Your task to perform on an android device: uninstall "Life360: Find Family & Friends" Image 0: 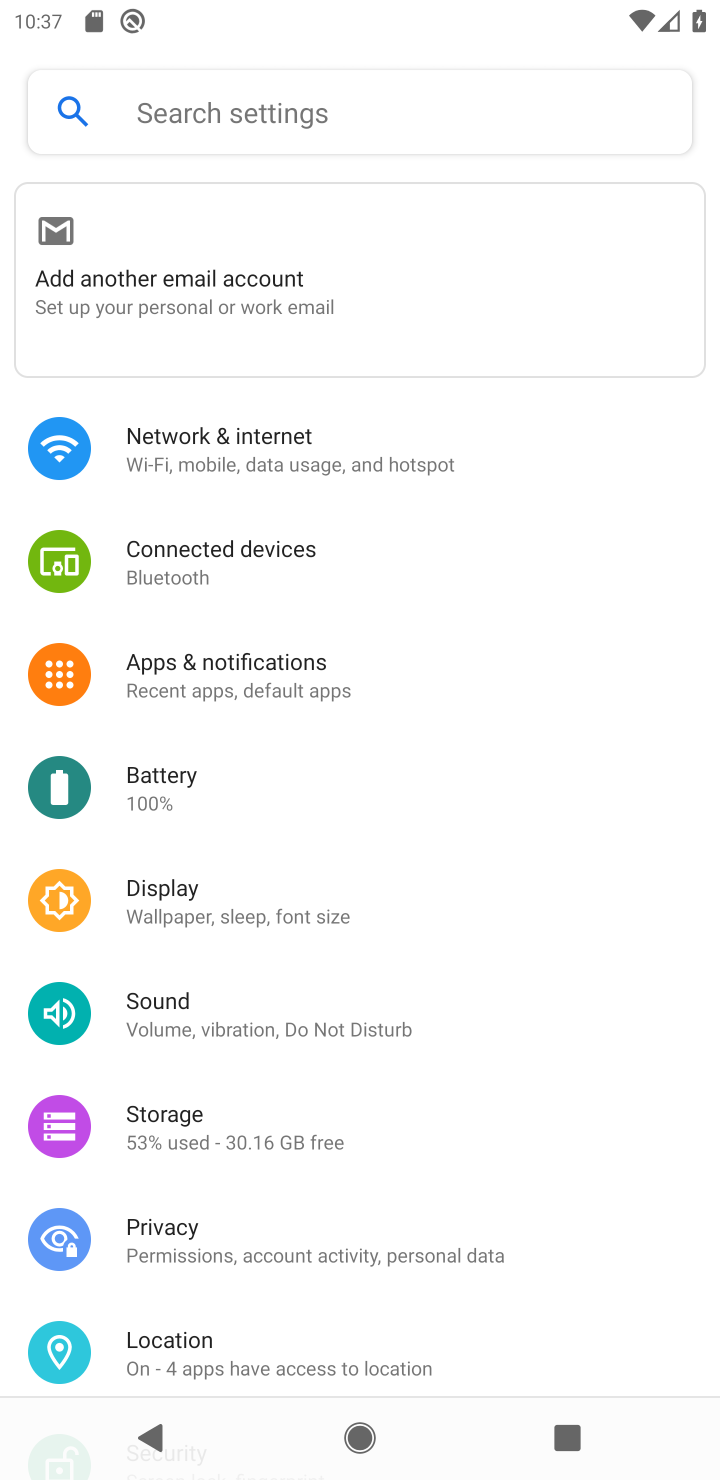
Step 0: press home button
Your task to perform on an android device: uninstall "Life360: Find Family & Friends" Image 1: 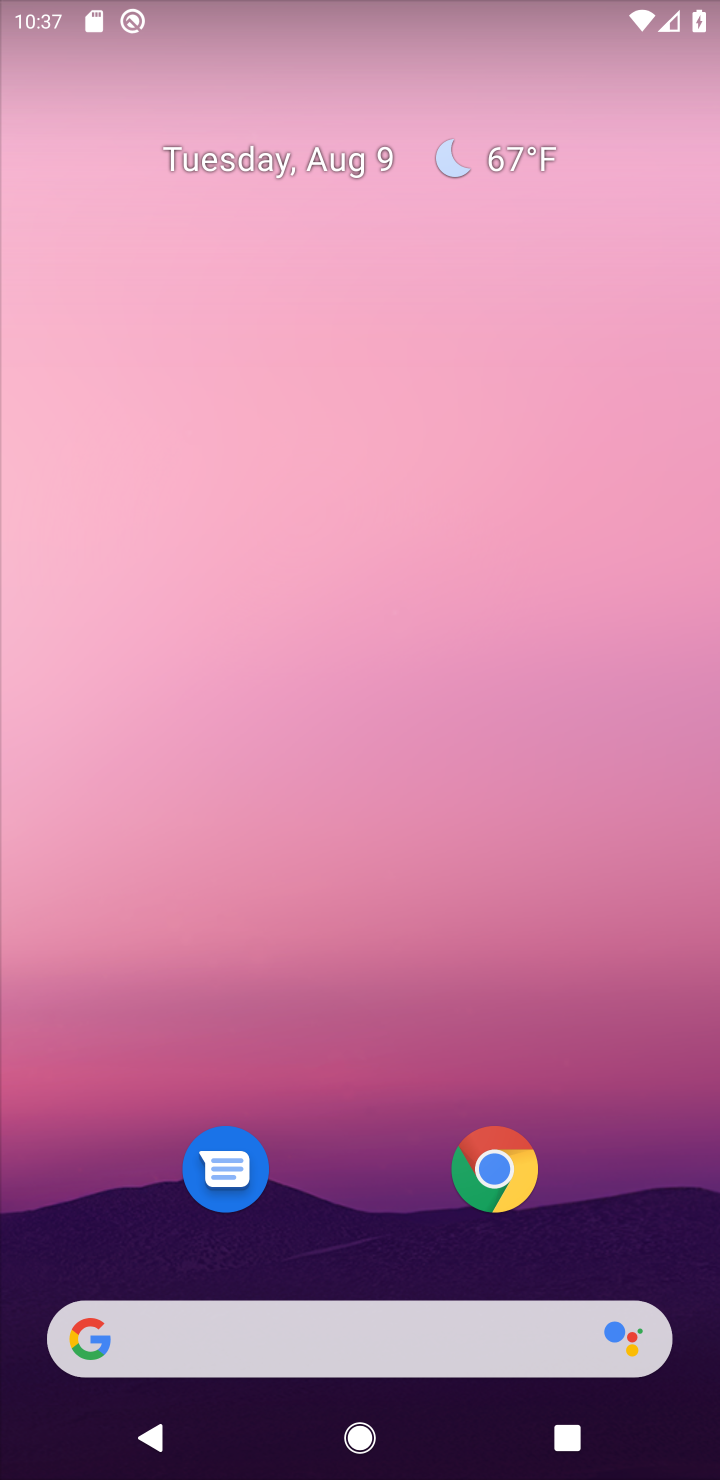
Step 1: drag from (654, 541) to (679, 108)
Your task to perform on an android device: uninstall "Life360: Find Family & Friends" Image 2: 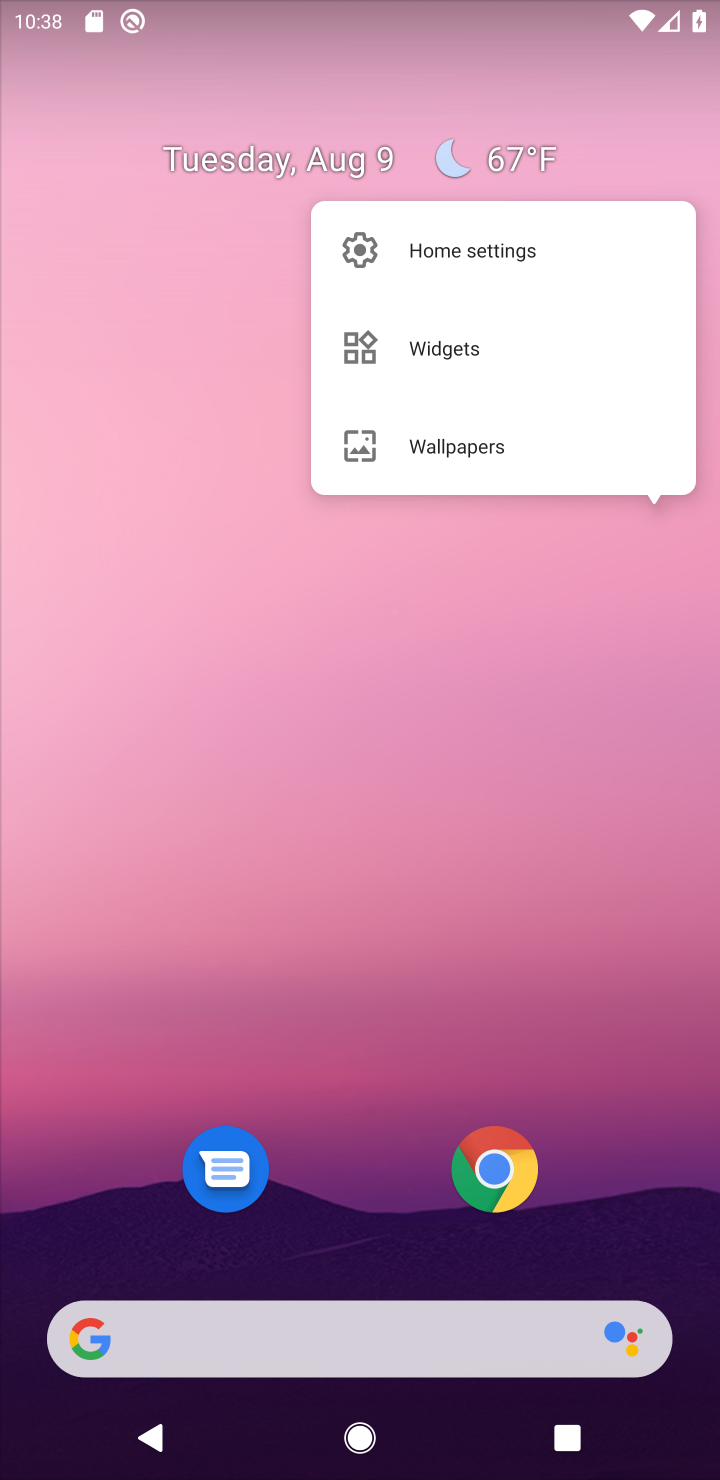
Step 2: click (599, 943)
Your task to perform on an android device: uninstall "Life360: Find Family & Friends" Image 3: 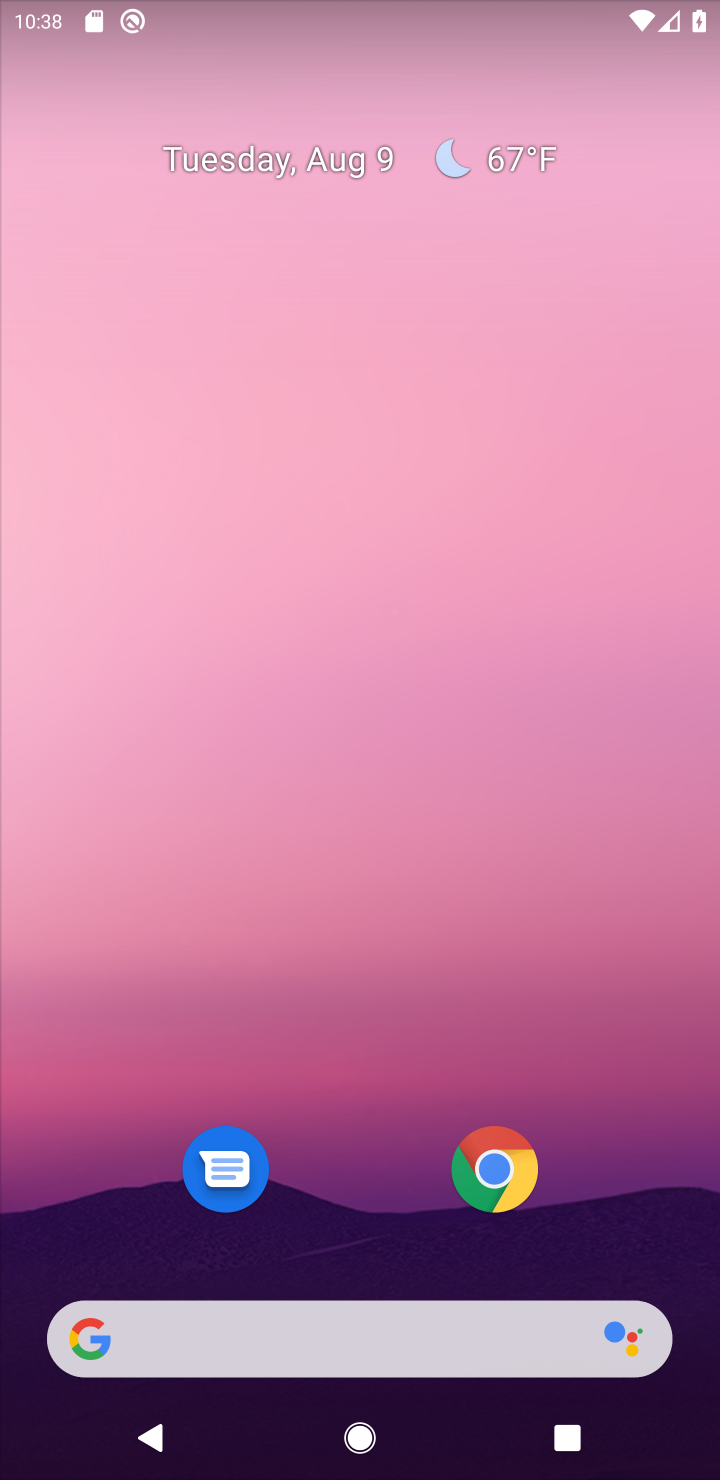
Step 3: drag from (617, 1158) to (606, 85)
Your task to perform on an android device: uninstall "Life360: Find Family & Friends" Image 4: 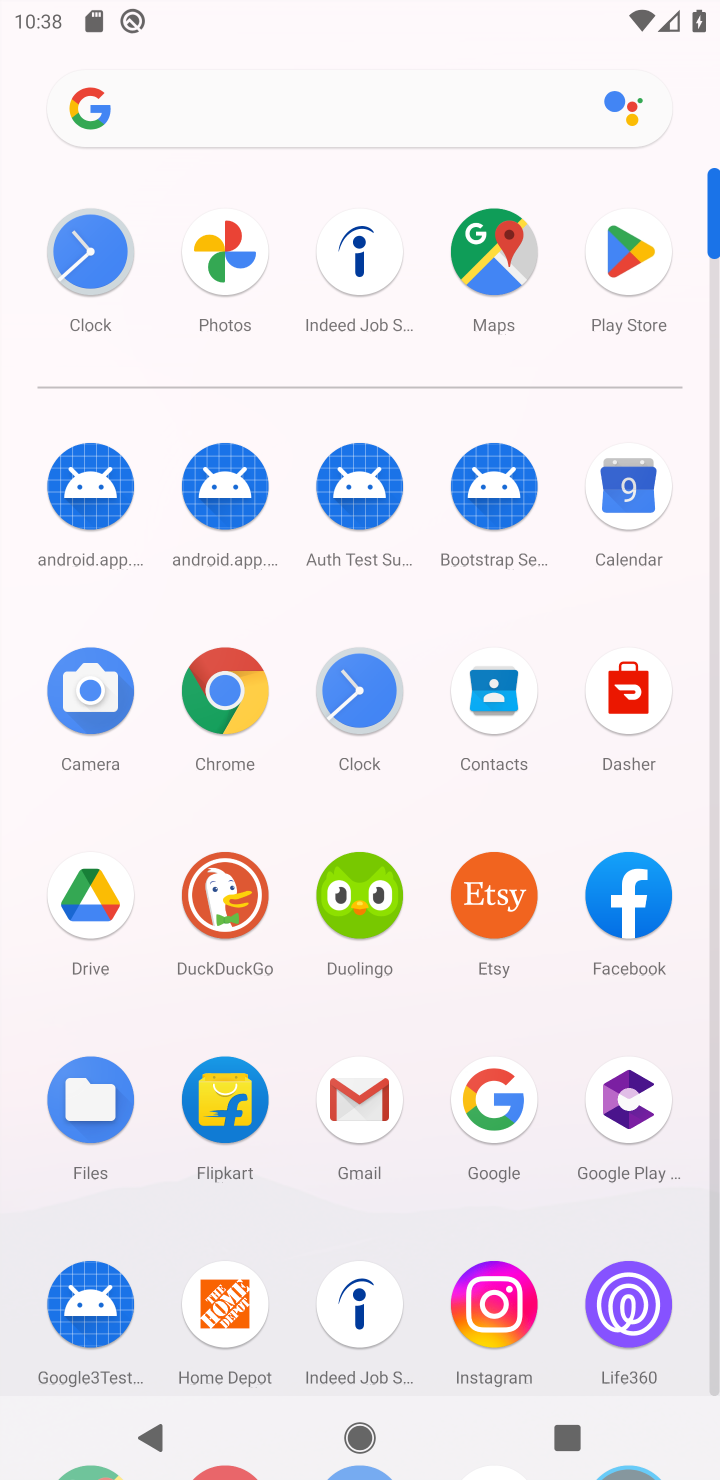
Step 4: click (632, 241)
Your task to perform on an android device: uninstall "Life360: Find Family & Friends" Image 5: 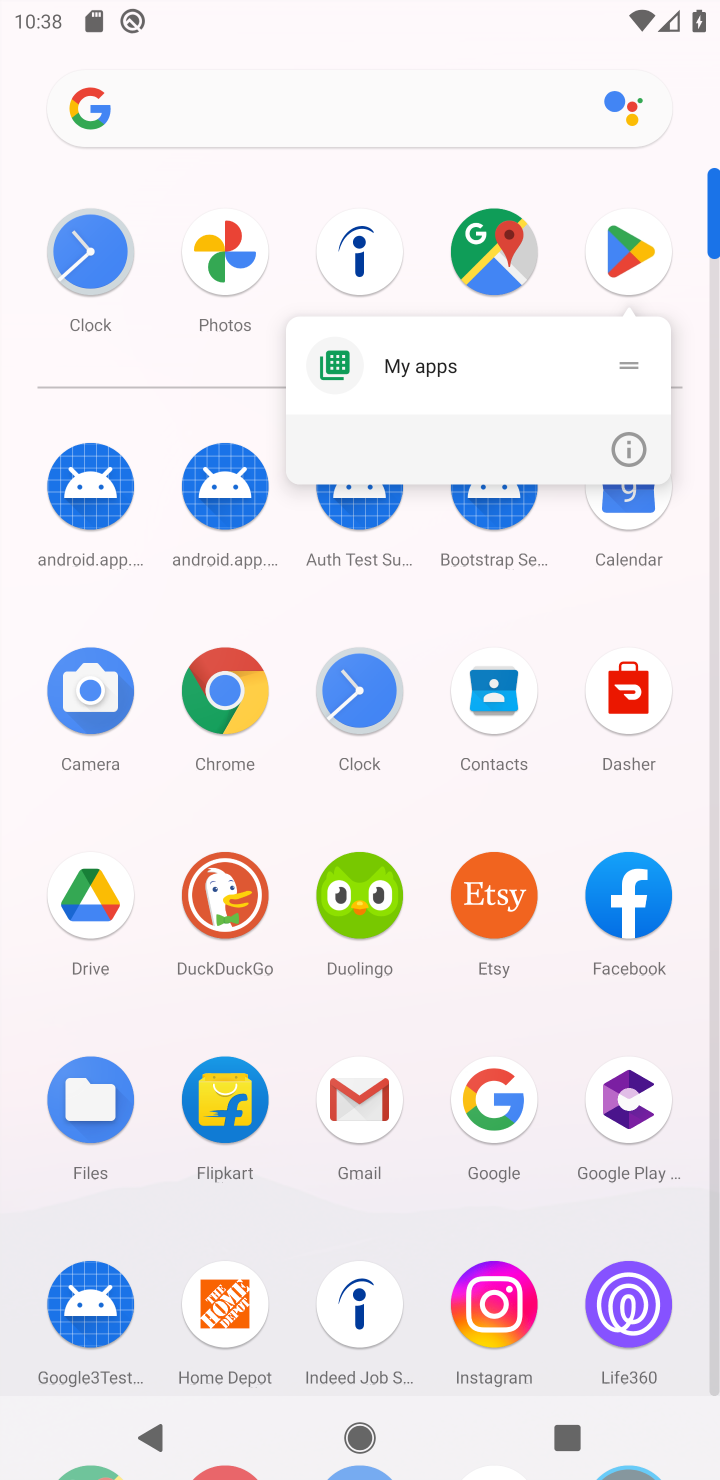
Step 5: click (614, 241)
Your task to perform on an android device: uninstall "Life360: Find Family & Friends" Image 6: 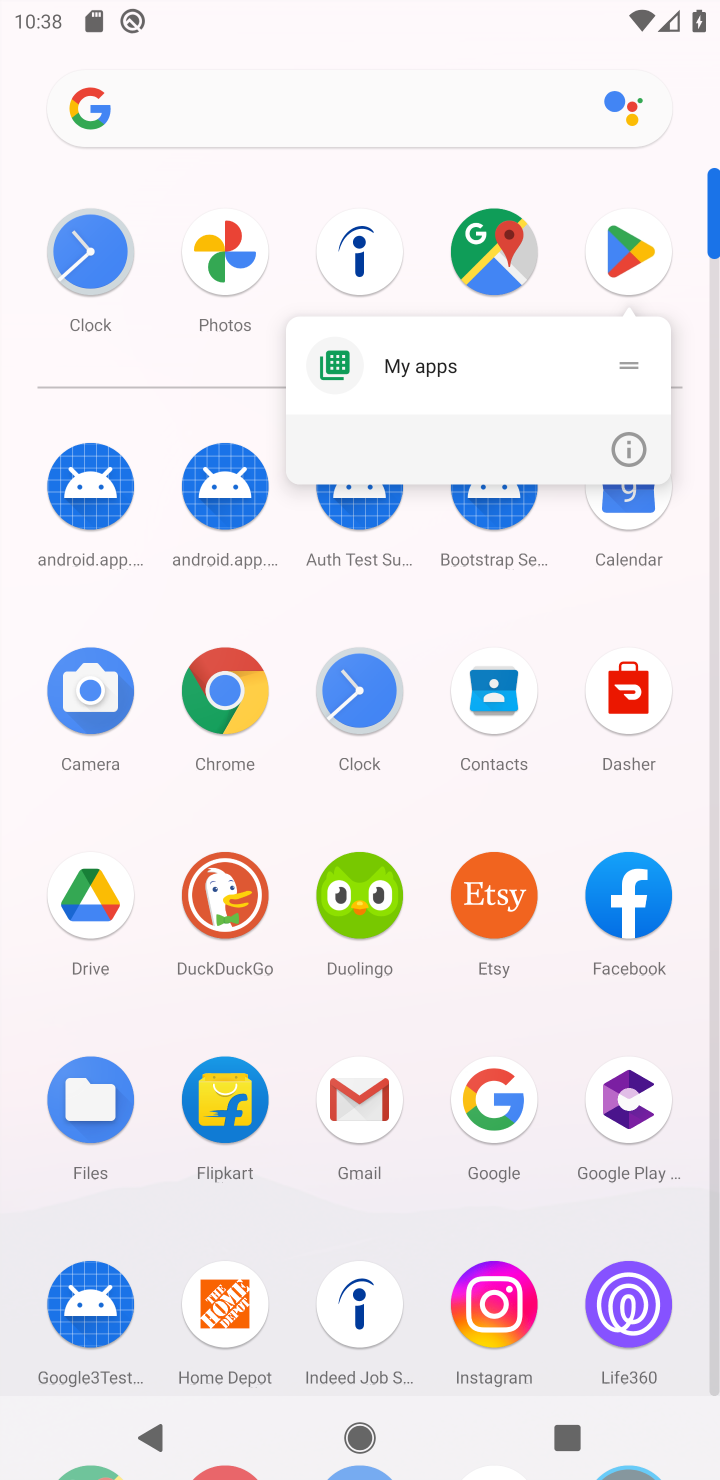
Step 6: click (626, 232)
Your task to perform on an android device: uninstall "Life360: Find Family & Friends" Image 7: 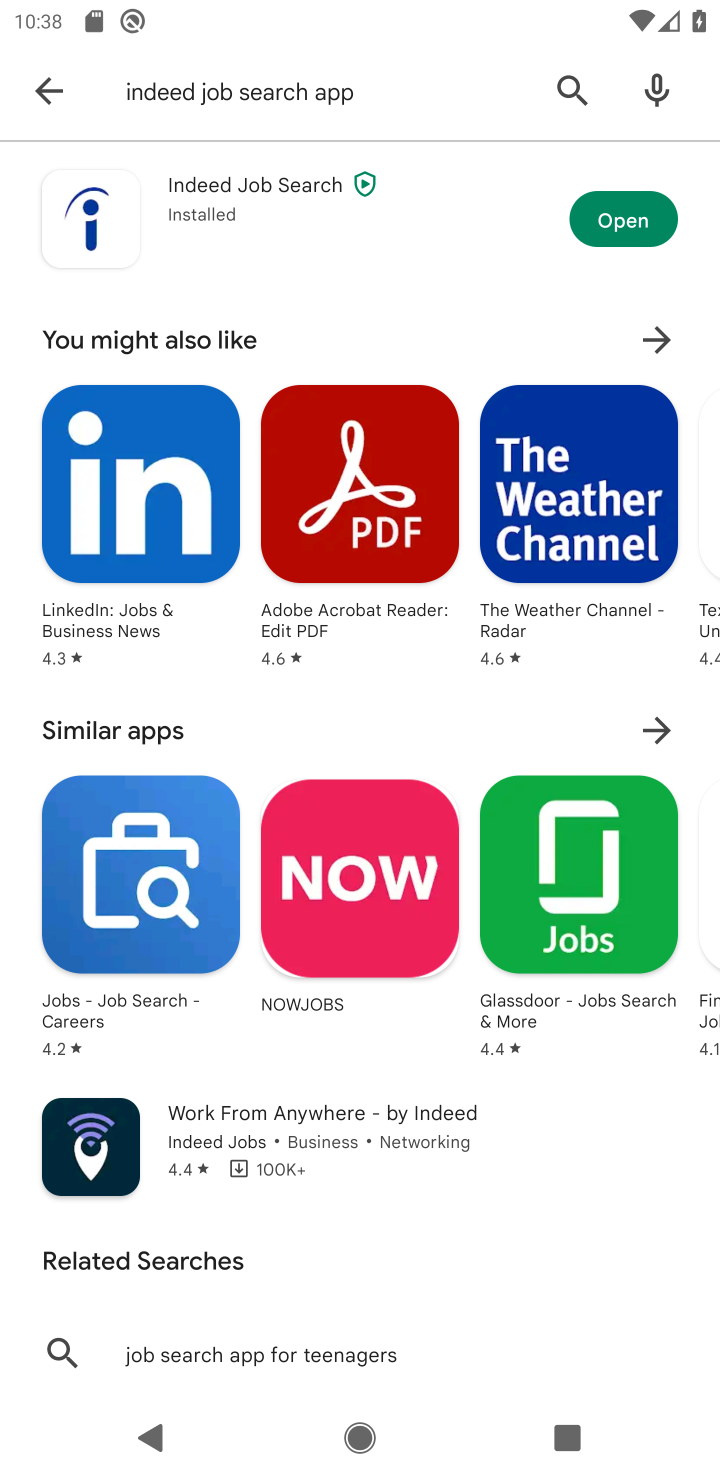
Step 7: click (568, 93)
Your task to perform on an android device: uninstall "Life360: Find Family & Friends" Image 8: 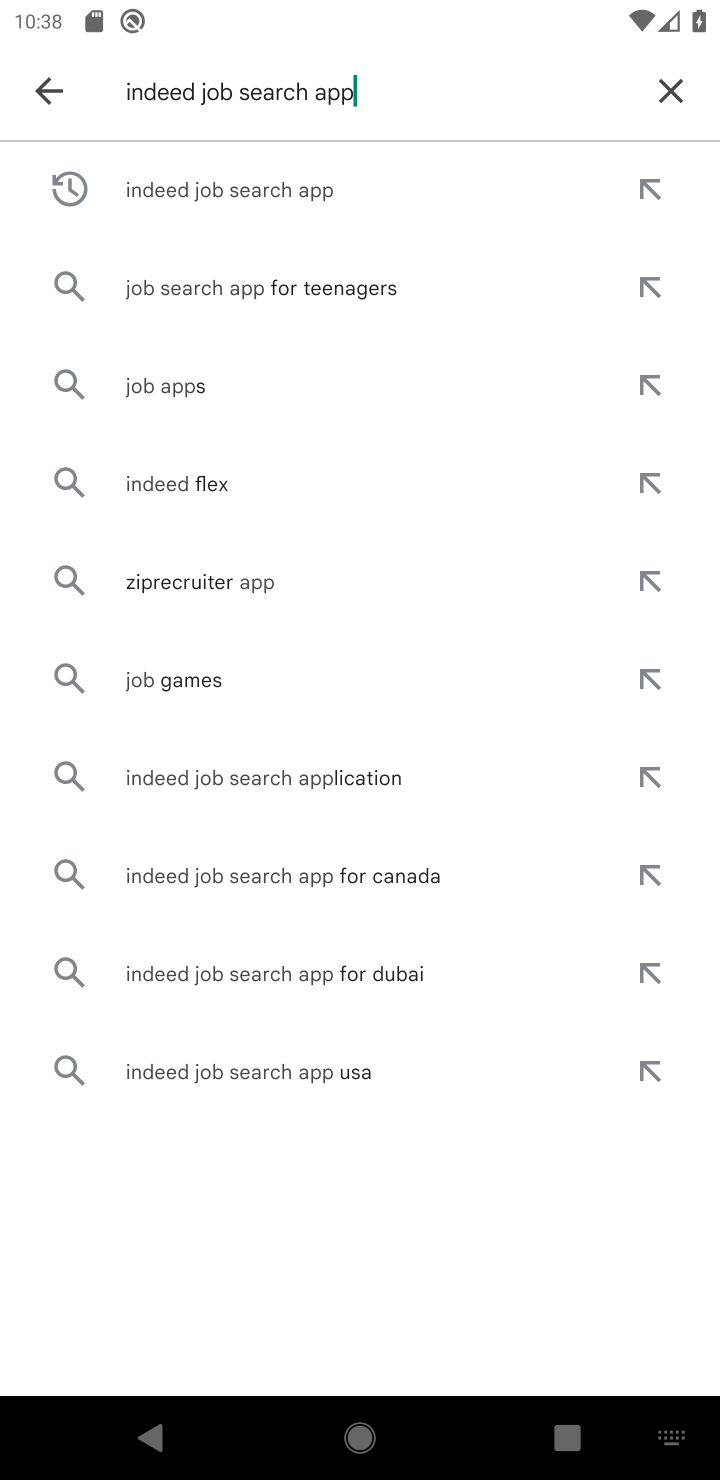
Step 8: click (669, 92)
Your task to perform on an android device: uninstall "Life360: Find Family & Friends" Image 9: 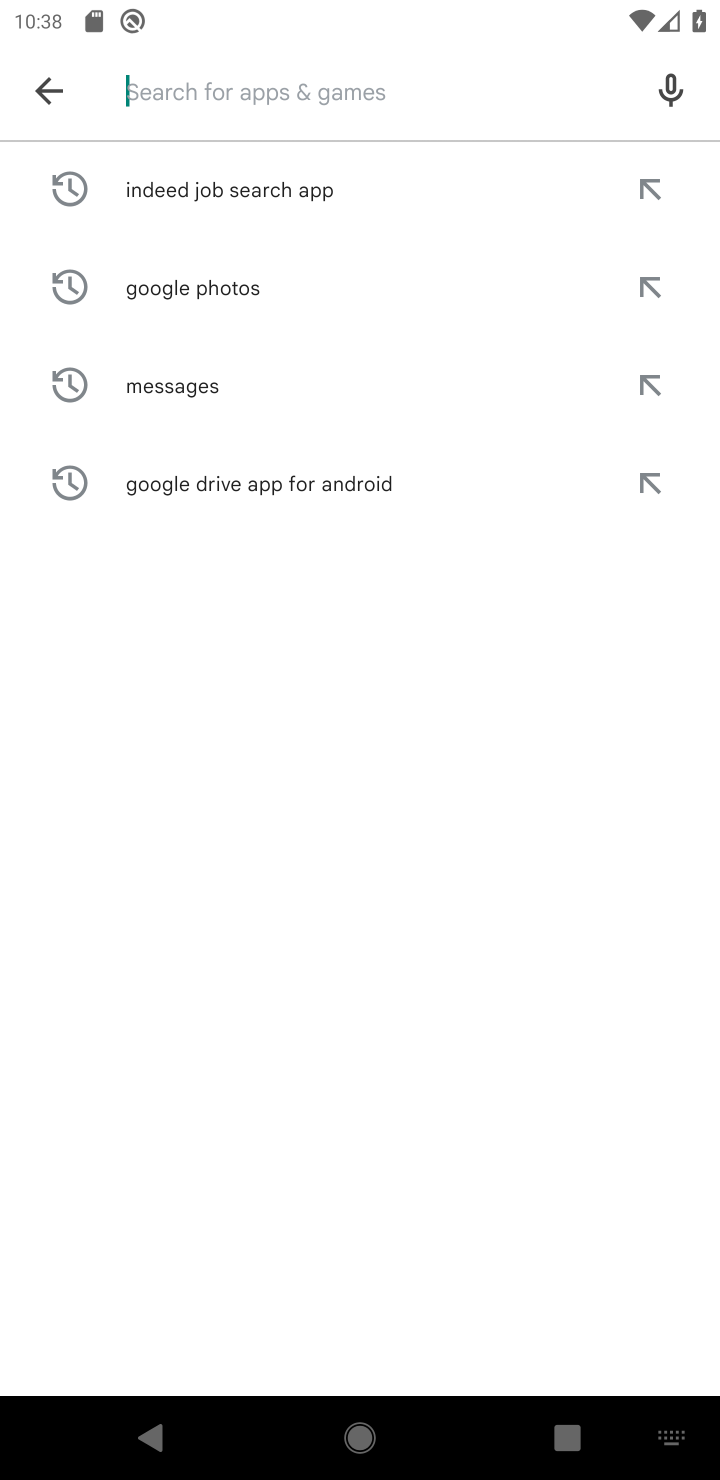
Step 9: type "Life360: Find Family & Friends"
Your task to perform on an android device: uninstall "Life360: Find Family & Friends" Image 10: 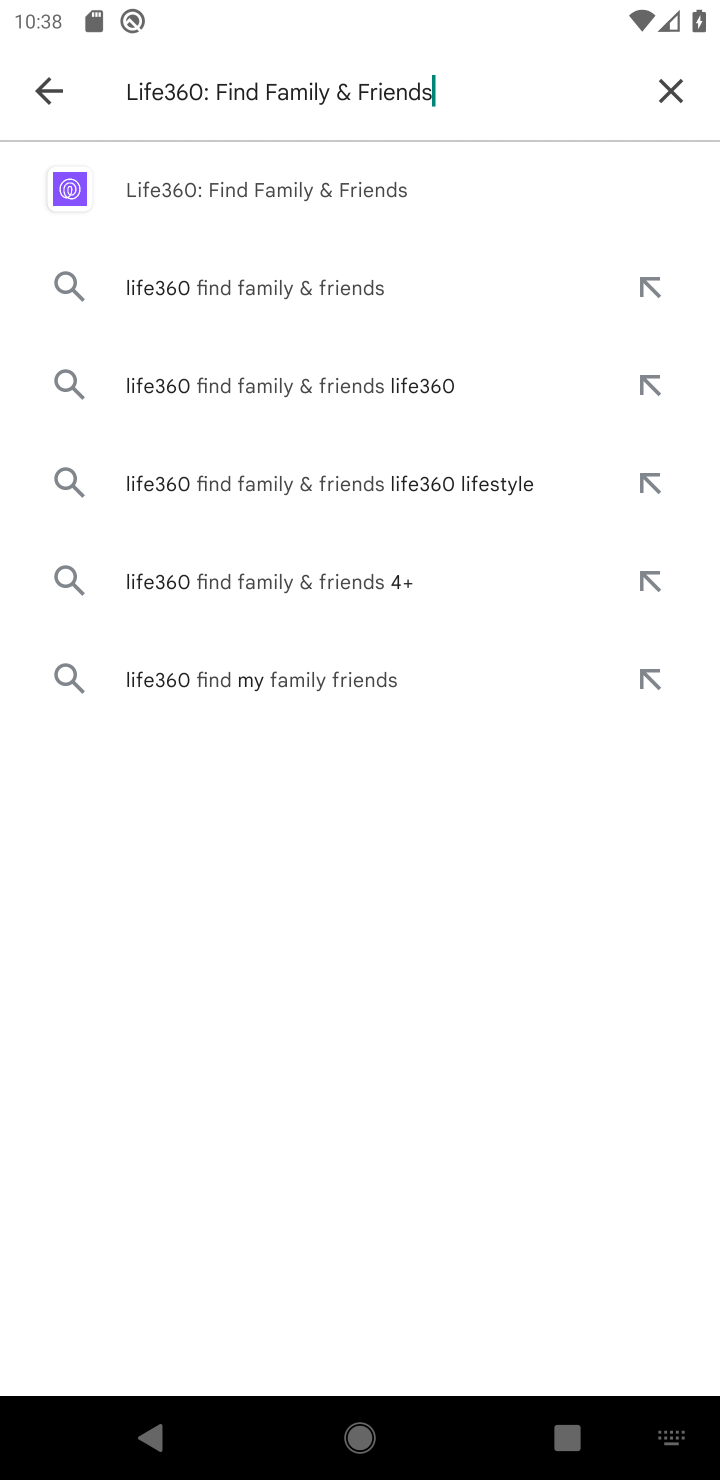
Step 10: click (319, 188)
Your task to perform on an android device: uninstall "Life360: Find Family & Friends" Image 11: 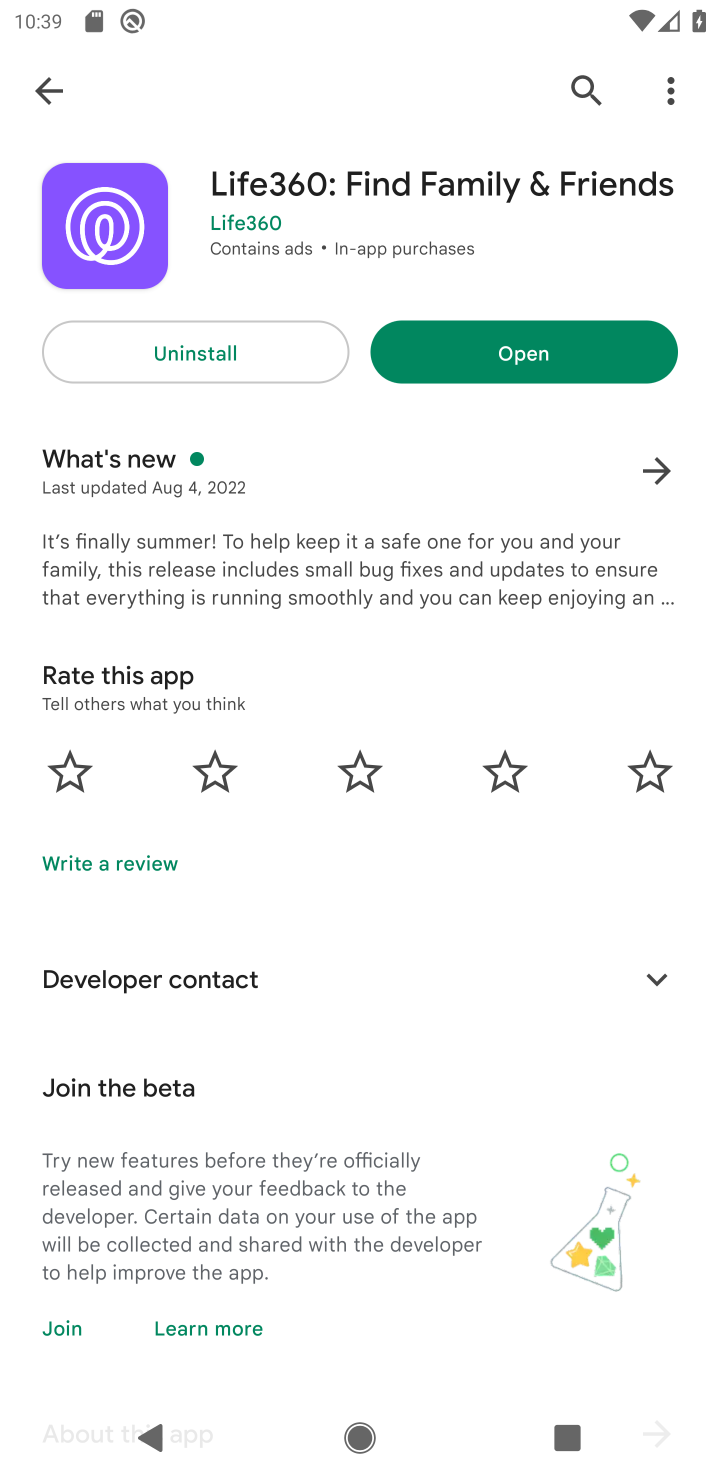
Step 11: click (199, 362)
Your task to perform on an android device: uninstall "Life360: Find Family & Friends" Image 12: 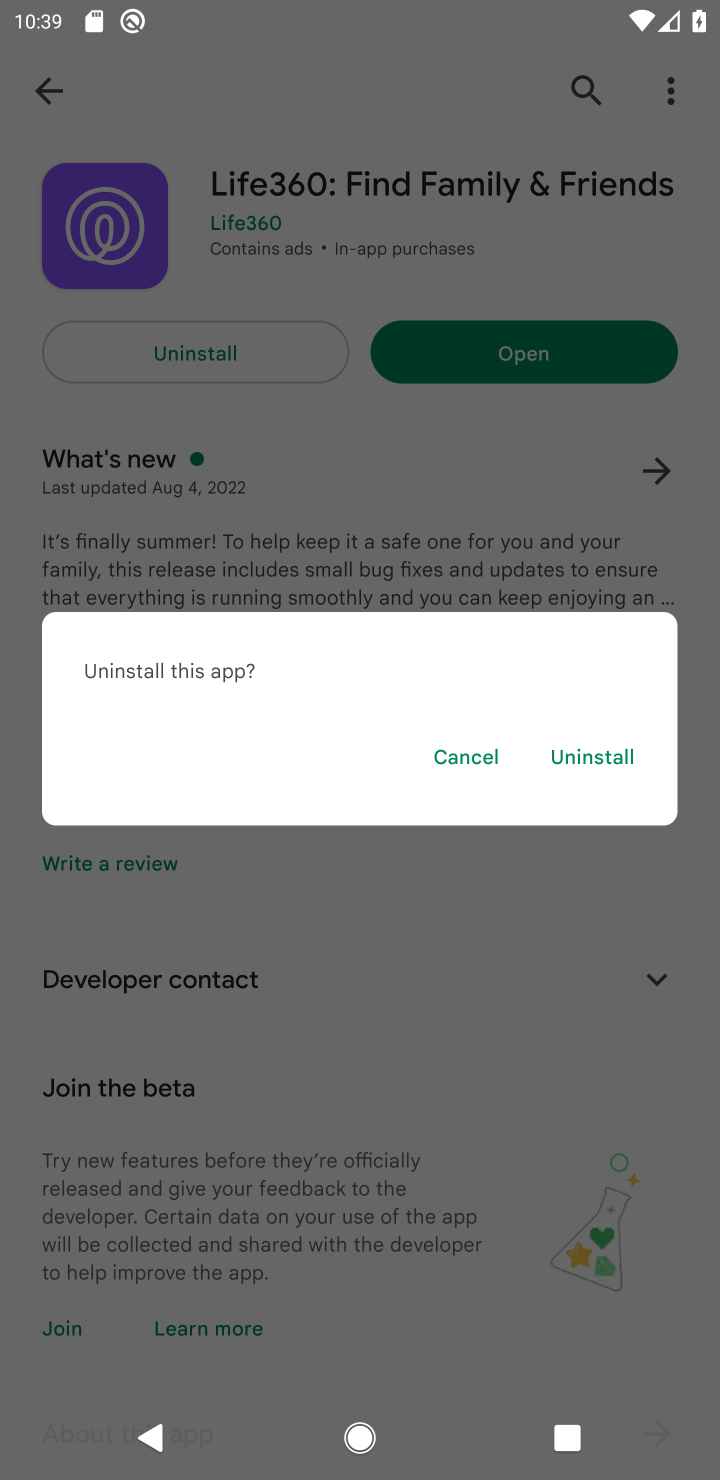
Step 12: click (574, 765)
Your task to perform on an android device: uninstall "Life360: Find Family & Friends" Image 13: 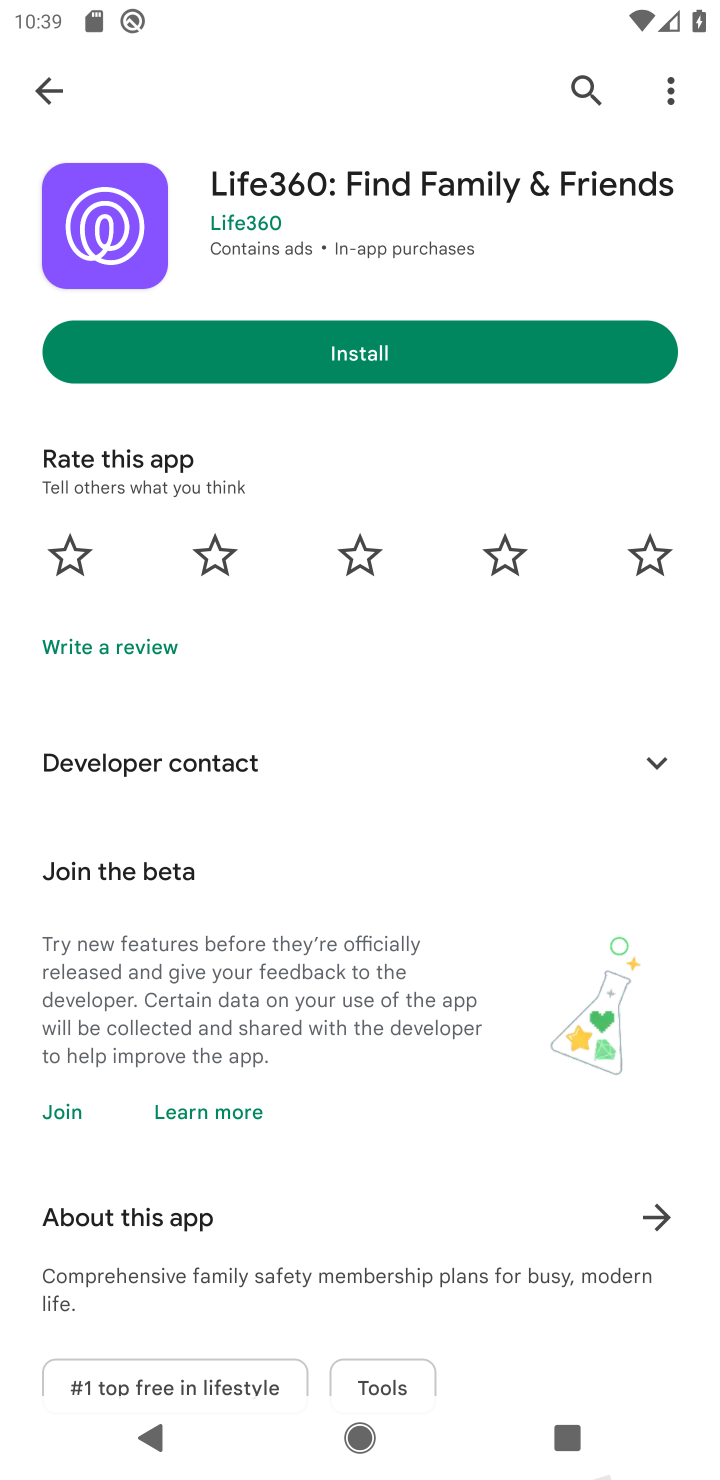
Step 13: task complete